Your task to perform on an android device: Open the stopwatch Image 0: 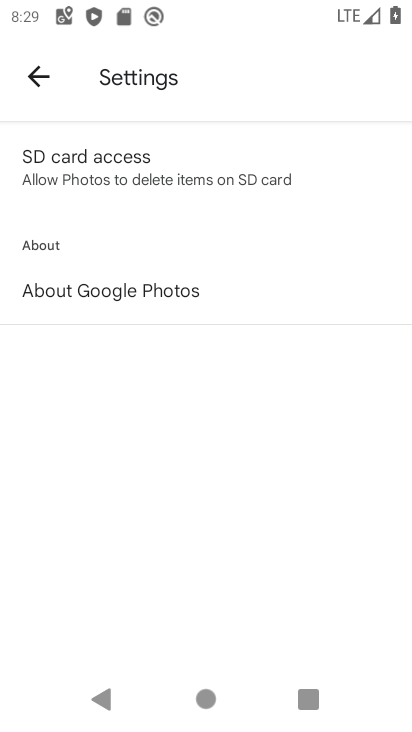
Step 0: press home button
Your task to perform on an android device: Open the stopwatch Image 1: 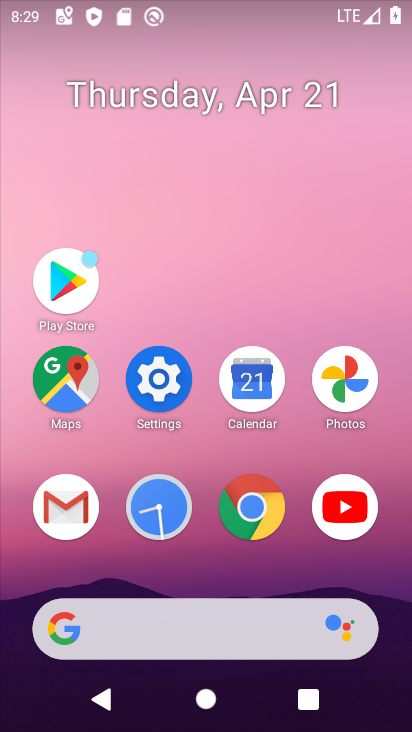
Step 1: click (169, 492)
Your task to perform on an android device: Open the stopwatch Image 2: 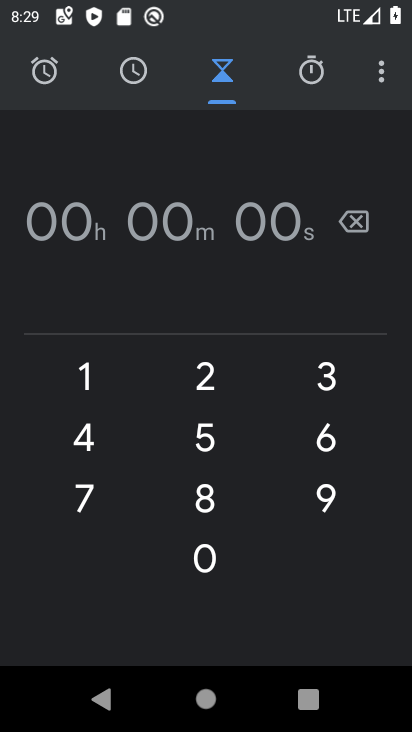
Step 2: click (311, 72)
Your task to perform on an android device: Open the stopwatch Image 3: 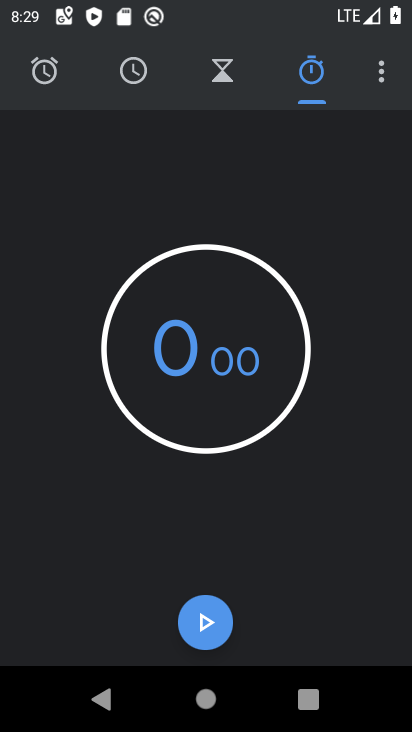
Step 3: task complete